Your task to perform on an android device: Go to Yahoo.com Image 0: 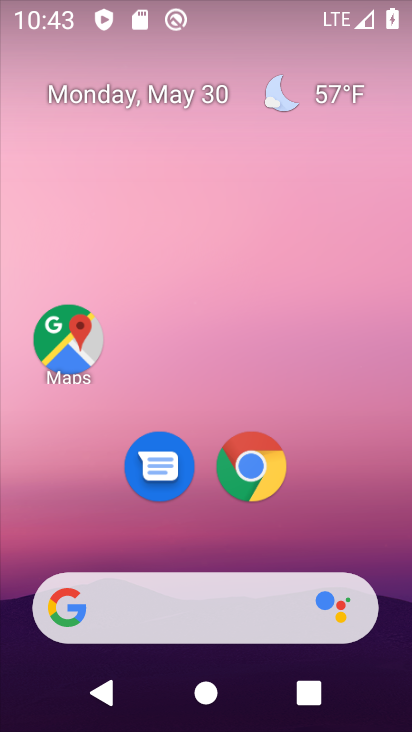
Step 0: press home button
Your task to perform on an android device: Go to Yahoo.com Image 1: 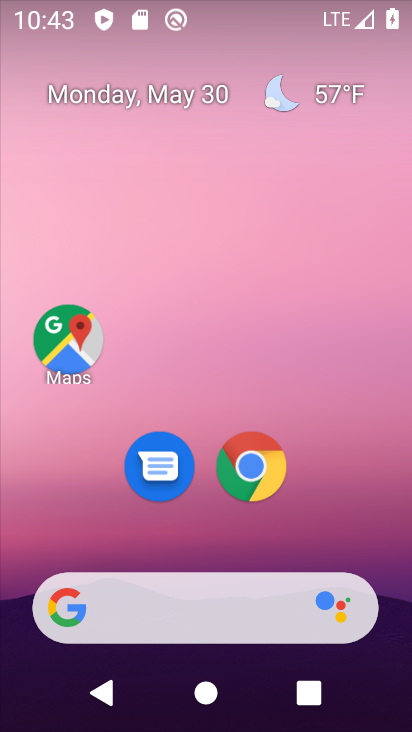
Step 1: click (175, 623)
Your task to perform on an android device: Go to Yahoo.com Image 2: 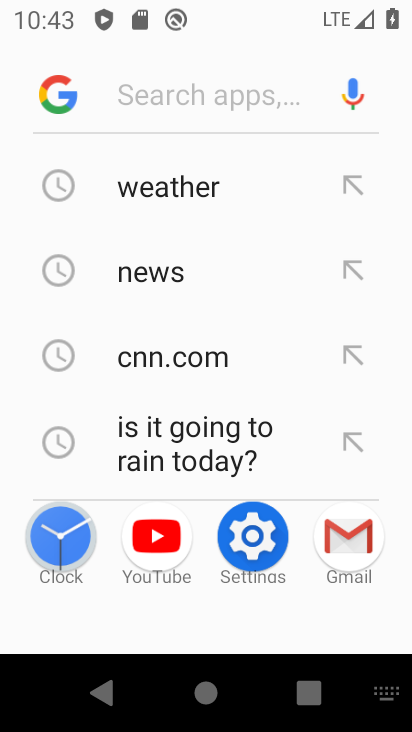
Step 2: type " Yahoo.com"
Your task to perform on an android device: Go to Yahoo.com Image 3: 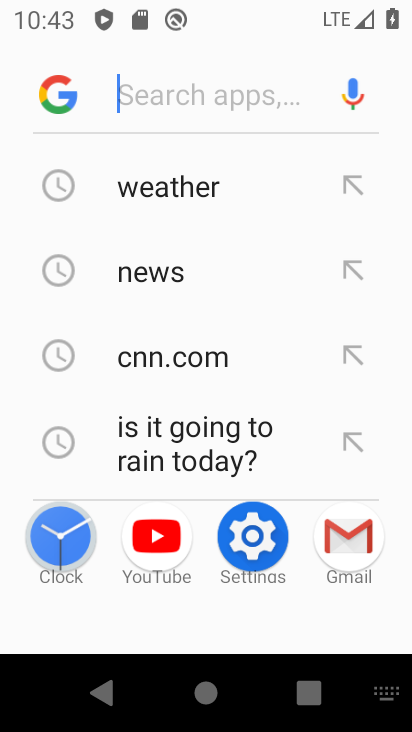
Step 3: click (193, 92)
Your task to perform on an android device: Go to Yahoo.com Image 4: 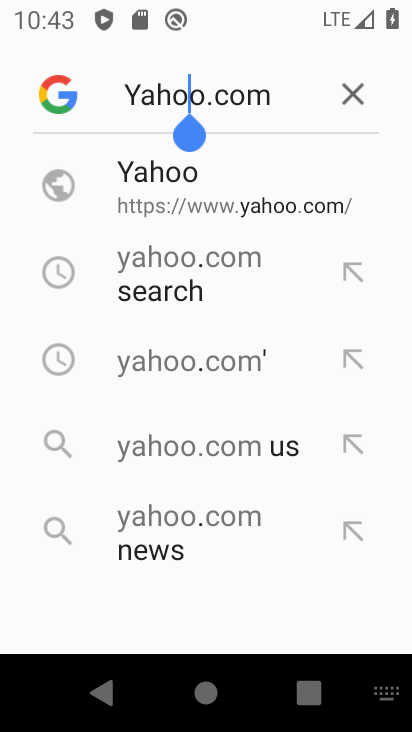
Step 4: click (196, 177)
Your task to perform on an android device: Go to Yahoo.com Image 5: 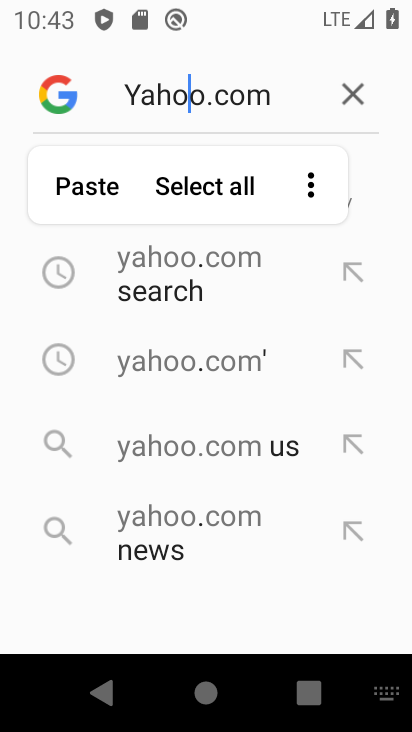
Step 5: click (273, 98)
Your task to perform on an android device: Go to Yahoo.com Image 6: 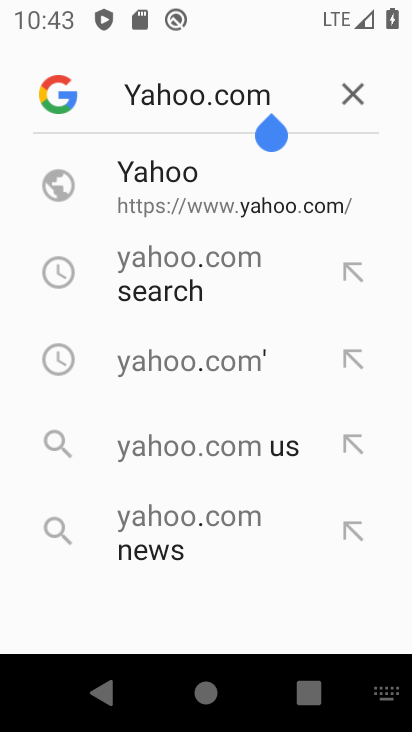
Step 6: click (154, 173)
Your task to perform on an android device: Go to Yahoo.com Image 7: 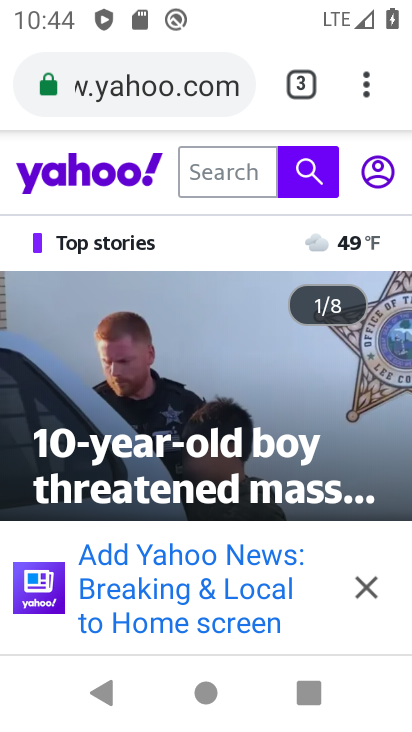
Step 7: task complete